Your task to perform on an android device: check battery use Image 0: 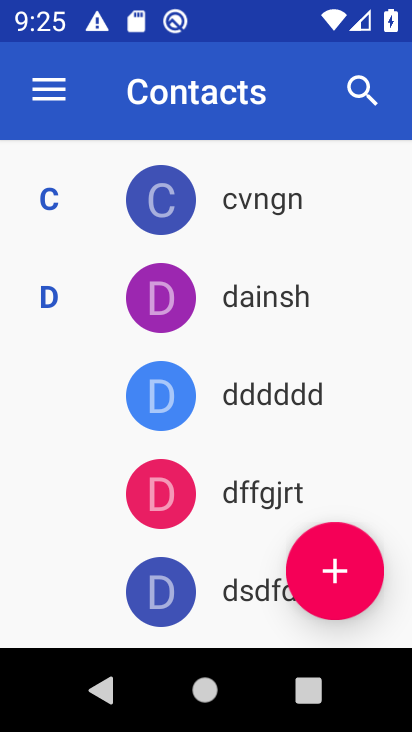
Step 0: click (143, 449)
Your task to perform on an android device: check battery use Image 1: 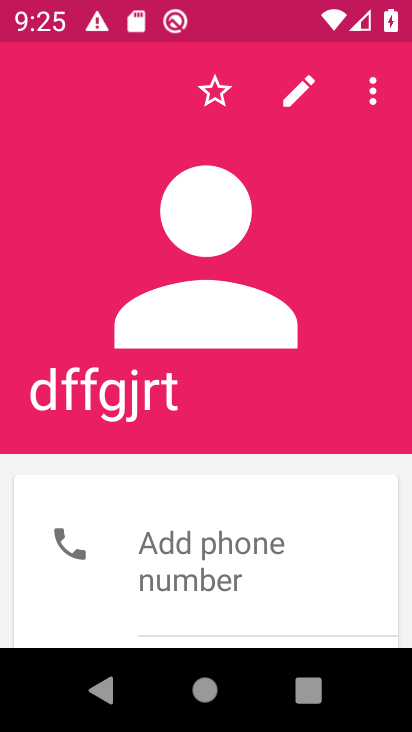
Step 1: press home button
Your task to perform on an android device: check battery use Image 2: 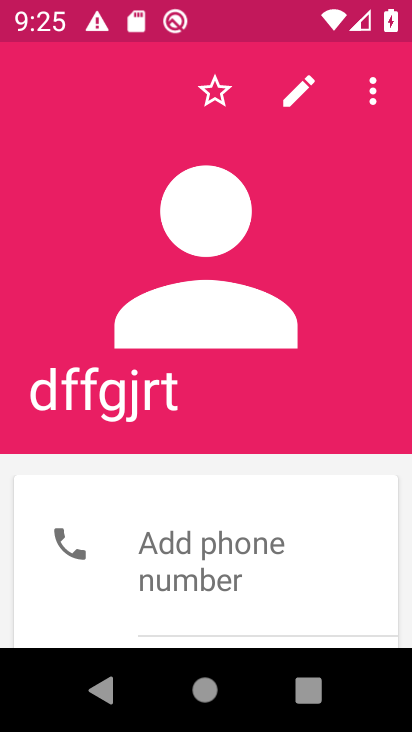
Step 2: press home button
Your task to perform on an android device: check battery use Image 3: 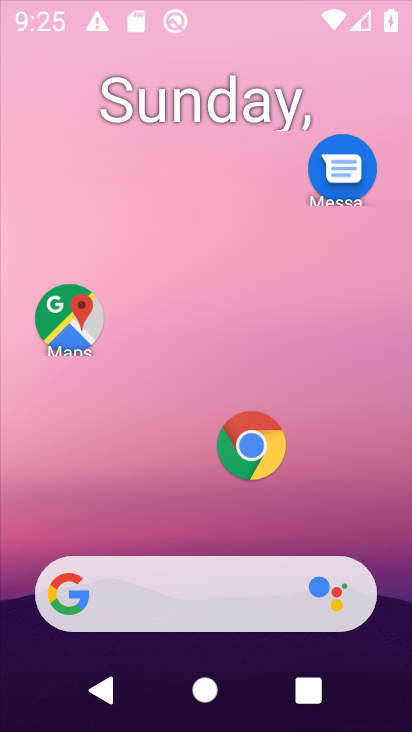
Step 3: press home button
Your task to perform on an android device: check battery use Image 4: 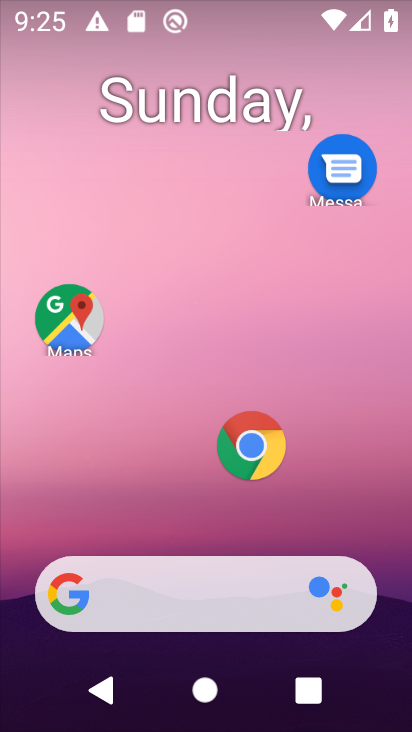
Step 4: drag from (181, 491) to (316, 117)
Your task to perform on an android device: check battery use Image 5: 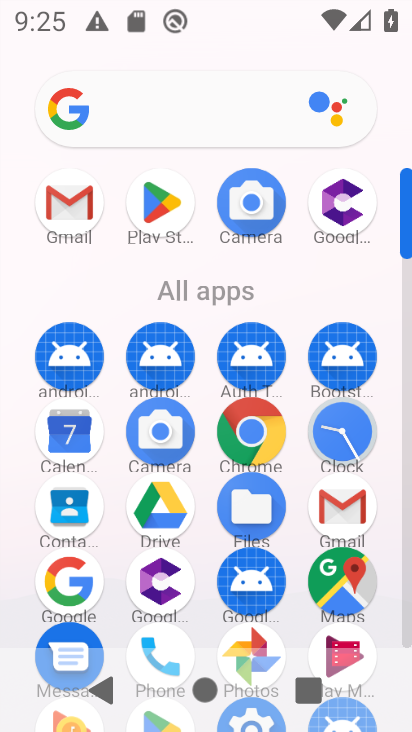
Step 5: drag from (219, 513) to (222, 277)
Your task to perform on an android device: check battery use Image 6: 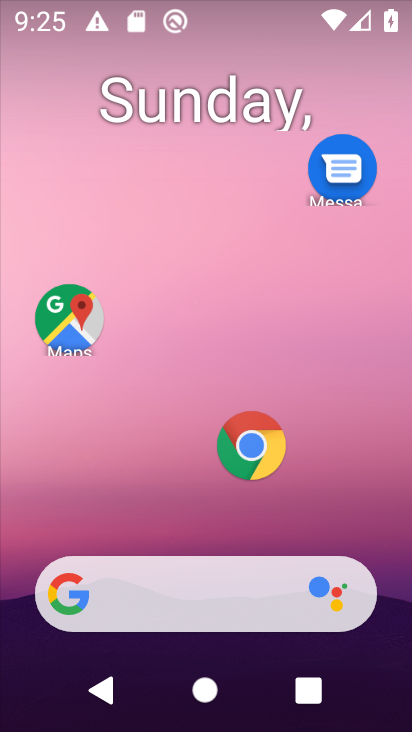
Step 6: drag from (204, 623) to (176, 255)
Your task to perform on an android device: check battery use Image 7: 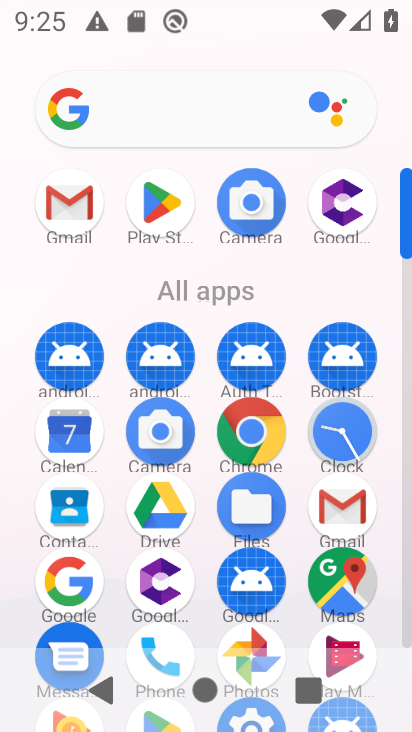
Step 7: click (260, 718)
Your task to perform on an android device: check battery use Image 8: 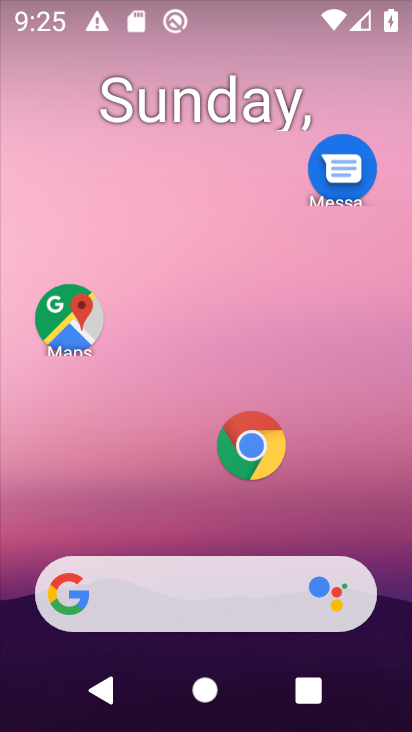
Step 8: drag from (174, 461) to (318, 16)
Your task to perform on an android device: check battery use Image 9: 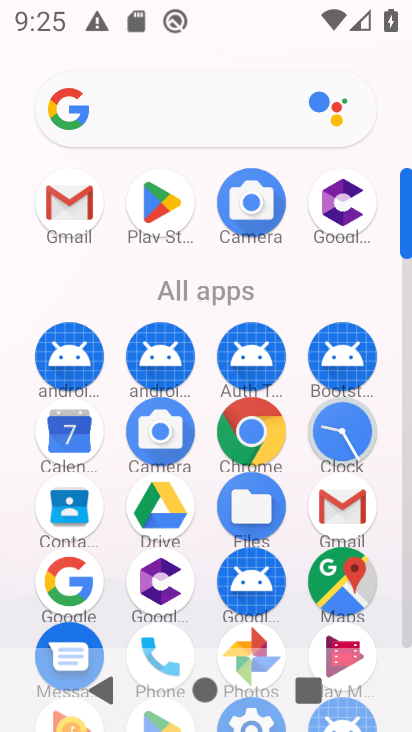
Step 9: drag from (200, 573) to (207, 294)
Your task to perform on an android device: check battery use Image 10: 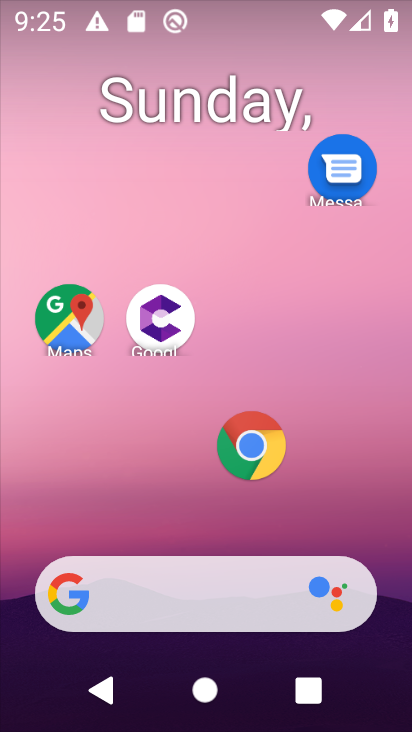
Step 10: drag from (154, 473) to (221, 40)
Your task to perform on an android device: check battery use Image 11: 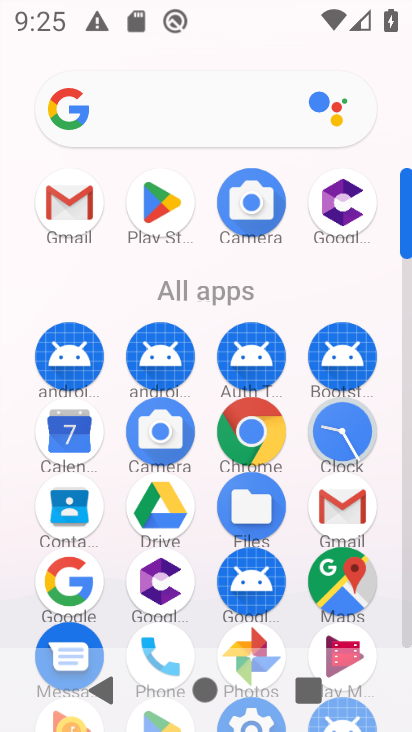
Step 11: drag from (295, 481) to (284, 248)
Your task to perform on an android device: check battery use Image 12: 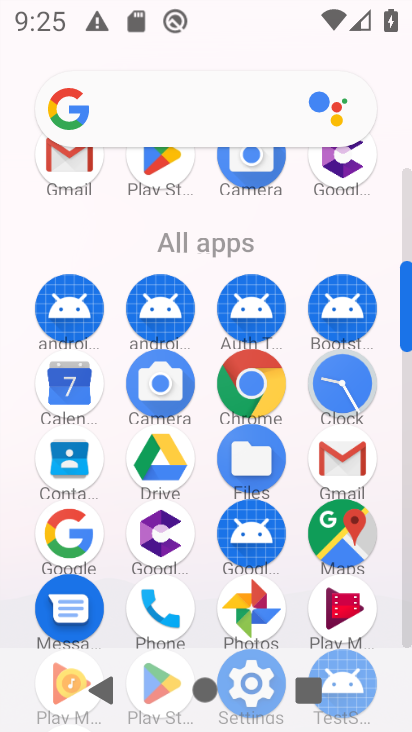
Step 12: drag from (378, 559) to (373, 366)
Your task to perform on an android device: check battery use Image 13: 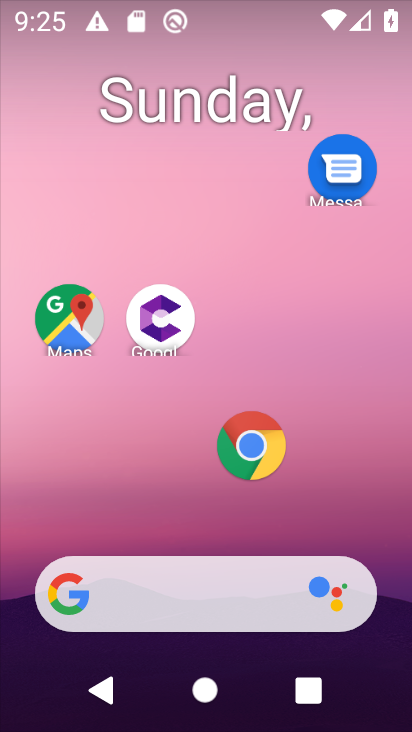
Step 13: drag from (158, 465) to (202, 69)
Your task to perform on an android device: check battery use Image 14: 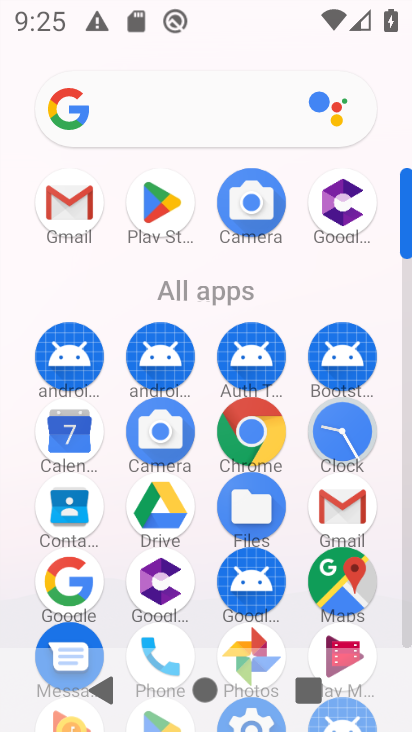
Step 14: drag from (19, 604) to (31, 264)
Your task to perform on an android device: check battery use Image 15: 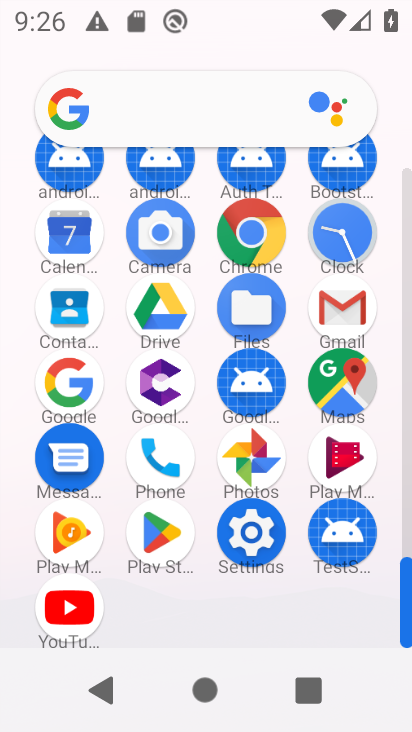
Step 15: click (249, 547)
Your task to perform on an android device: check battery use Image 16: 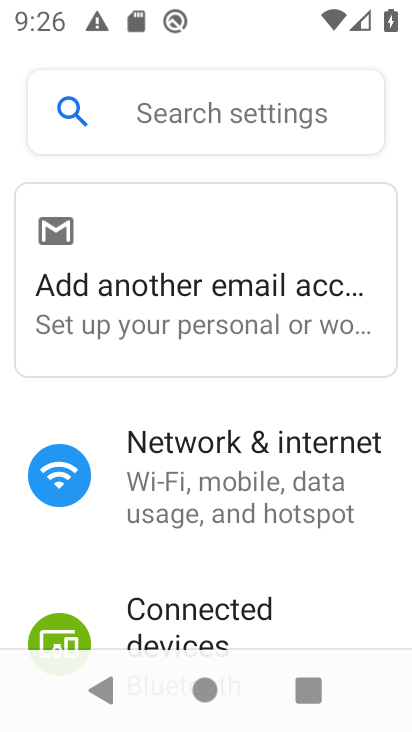
Step 16: drag from (281, 529) to (214, 63)
Your task to perform on an android device: check battery use Image 17: 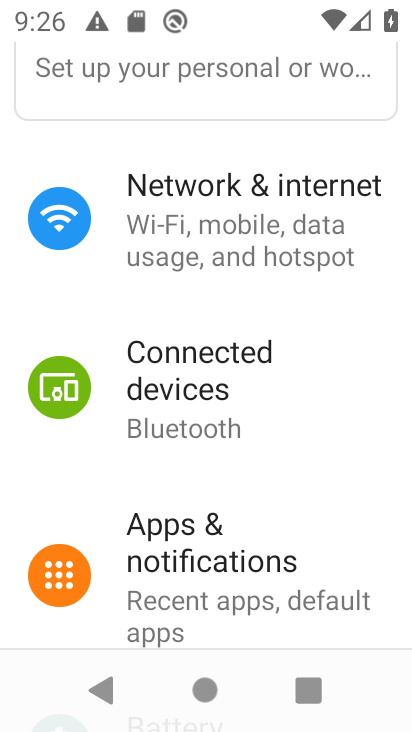
Step 17: drag from (216, 510) to (211, 249)
Your task to perform on an android device: check battery use Image 18: 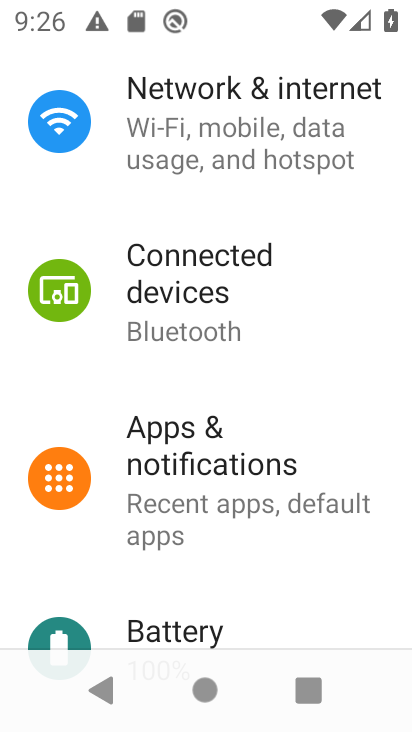
Step 18: drag from (195, 484) to (164, 191)
Your task to perform on an android device: check battery use Image 19: 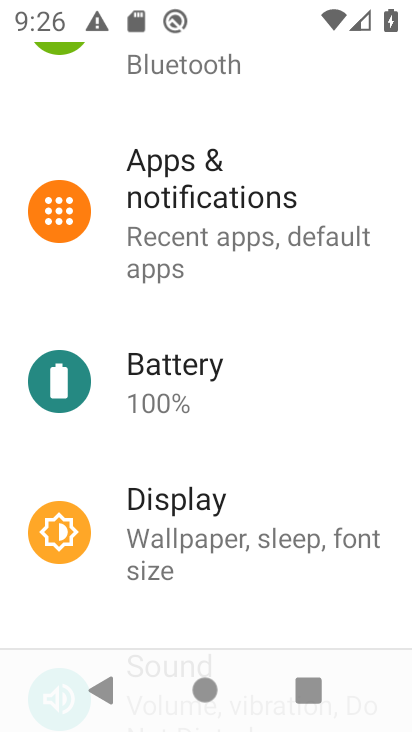
Step 19: click (198, 381)
Your task to perform on an android device: check battery use Image 20: 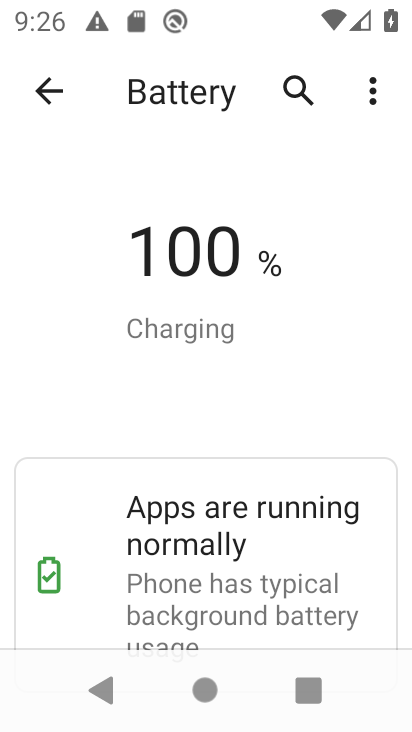
Step 20: task complete